Your task to perform on an android device: Go to location settings Image 0: 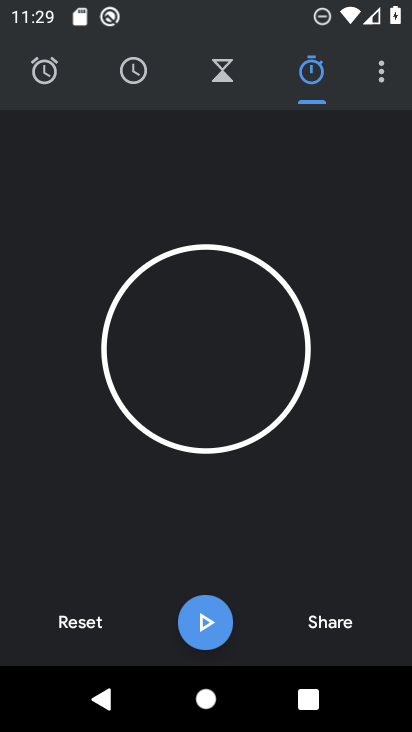
Step 0: press home button
Your task to perform on an android device: Go to location settings Image 1: 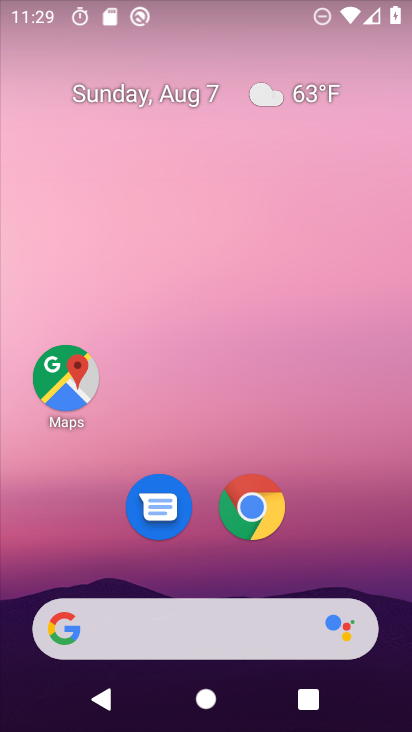
Step 1: drag from (346, 549) to (268, 167)
Your task to perform on an android device: Go to location settings Image 2: 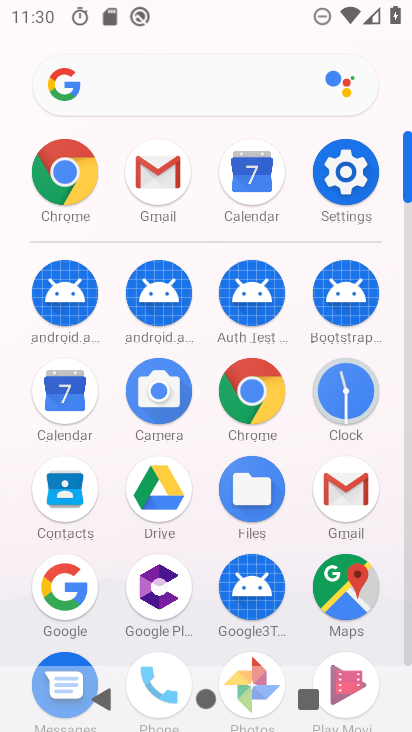
Step 2: click (354, 166)
Your task to perform on an android device: Go to location settings Image 3: 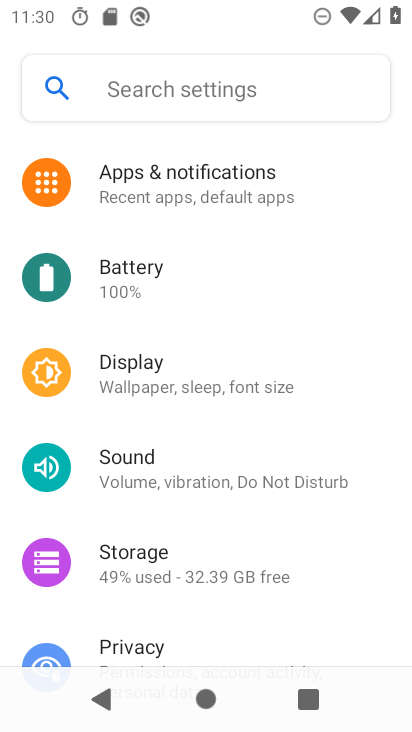
Step 3: drag from (228, 588) to (244, 127)
Your task to perform on an android device: Go to location settings Image 4: 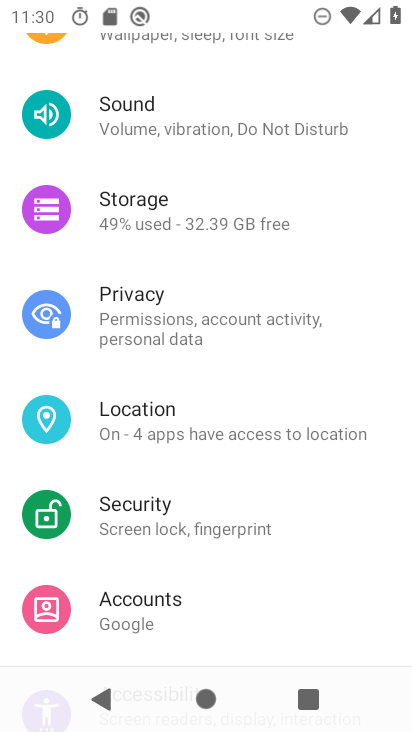
Step 4: click (171, 417)
Your task to perform on an android device: Go to location settings Image 5: 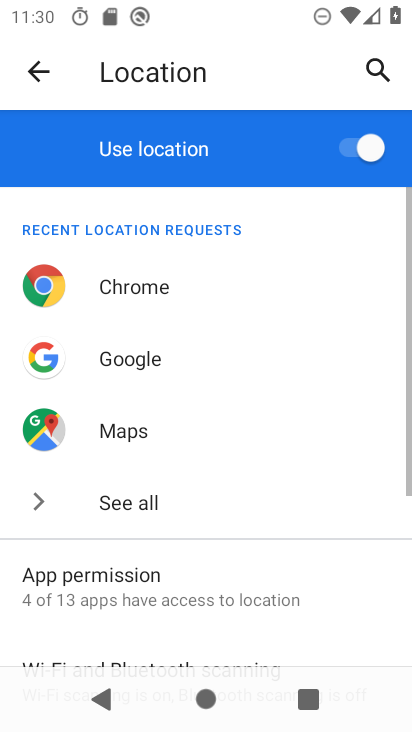
Step 5: task complete